Your task to perform on an android device: open a new tab in the chrome app Image 0: 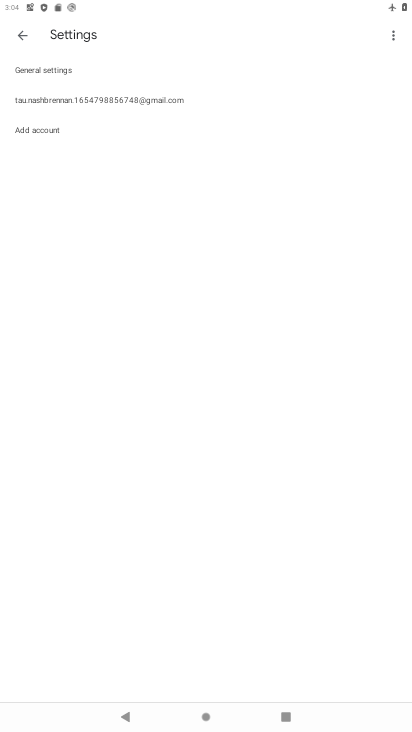
Step 0: press home button
Your task to perform on an android device: open a new tab in the chrome app Image 1: 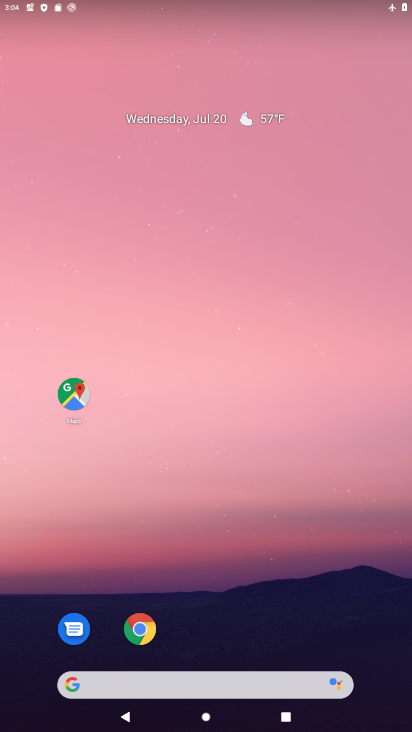
Step 1: click (146, 626)
Your task to perform on an android device: open a new tab in the chrome app Image 2: 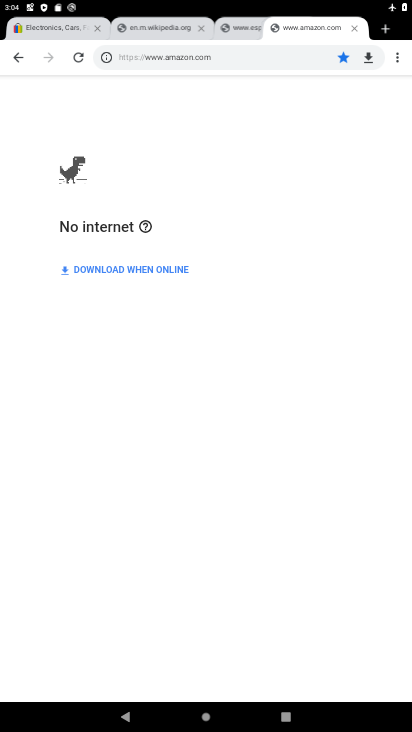
Step 2: click (378, 33)
Your task to perform on an android device: open a new tab in the chrome app Image 3: 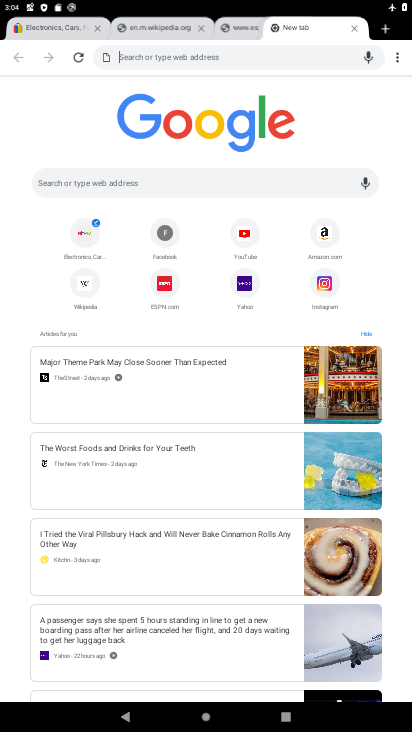
Step 3: task complete